Your task to perform on an android device: toggle javascript in the chrome app Image 0: 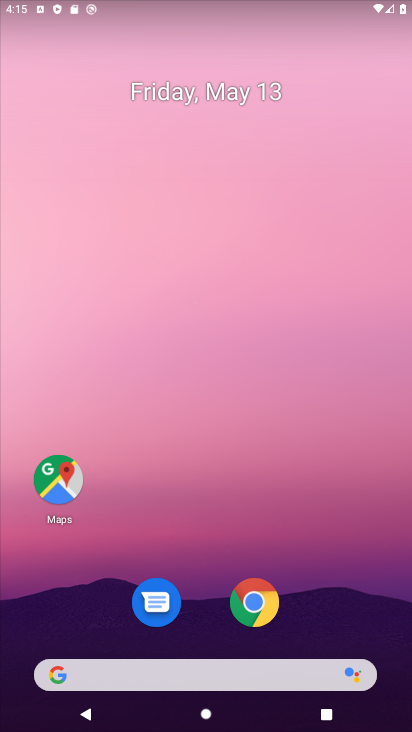
Step 0: click (256, 610)
Your task to perform on an android device: toggle javascript in the chrome app Image 1: 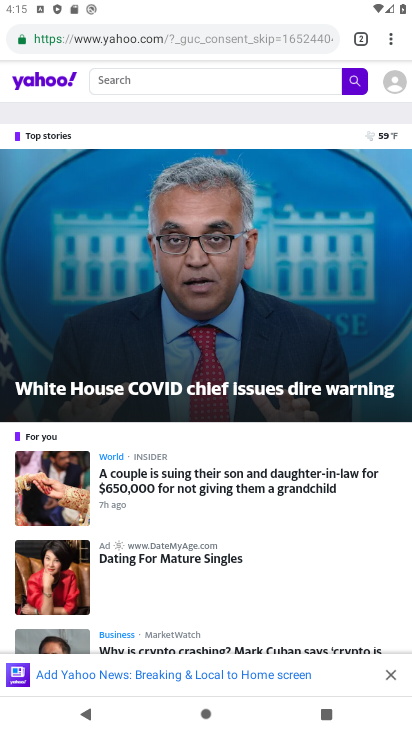
Step 1: click (393, 34)
Your task to perform on an android device: toggle javascript in the chrome app Image 2: 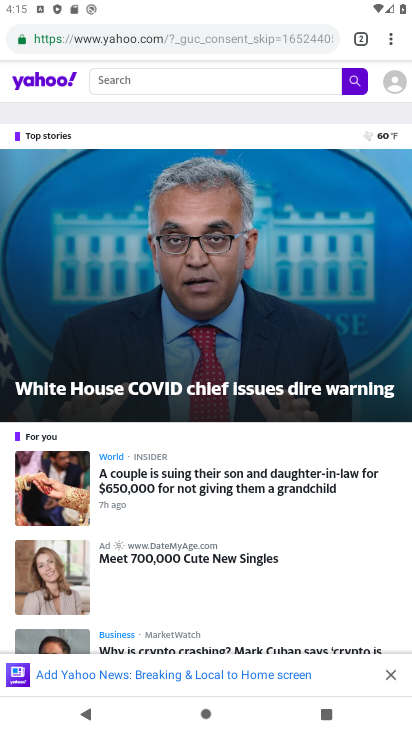
Step 2: click (392, 38)
Your task to perform on an android device: toggle javascript in the chrome app Image 3: 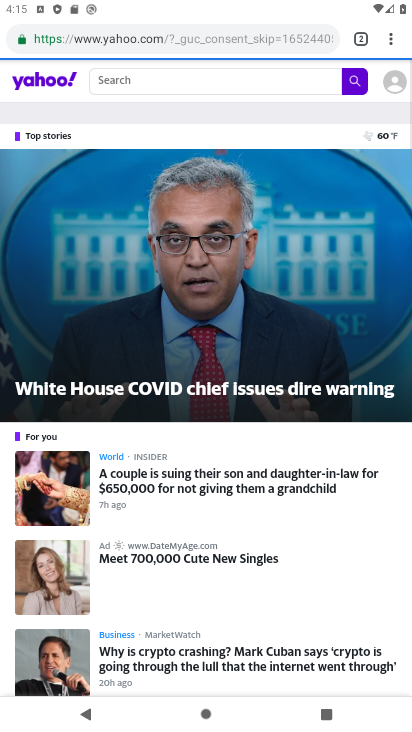
Step 3: click (392, 38)
Your task to perform on an android device: toggle javascript in the chrome app Image 4: 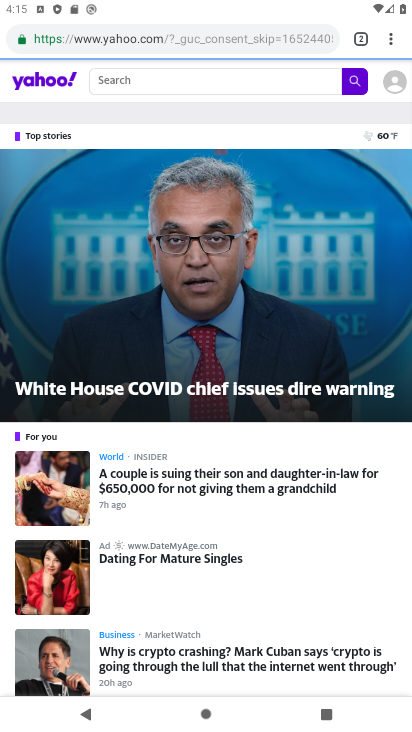
Step 4: click (392, 38)
Your task to perform on an android device: toggle javascript in the chrome app Image 5: 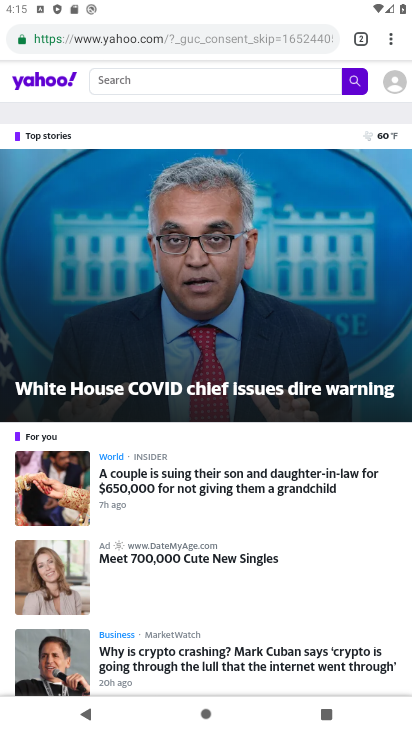
Step 5: click (359, 37)
Your task to perform on an android device: toggle javascript in the chrome app Image 6: 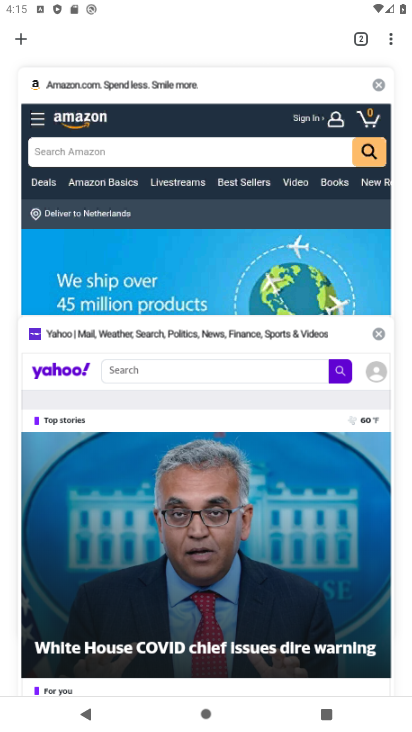
Step 6: click (380, 76)
Your task to perform on an android device: toggle javascript in the chrome app Image 7: 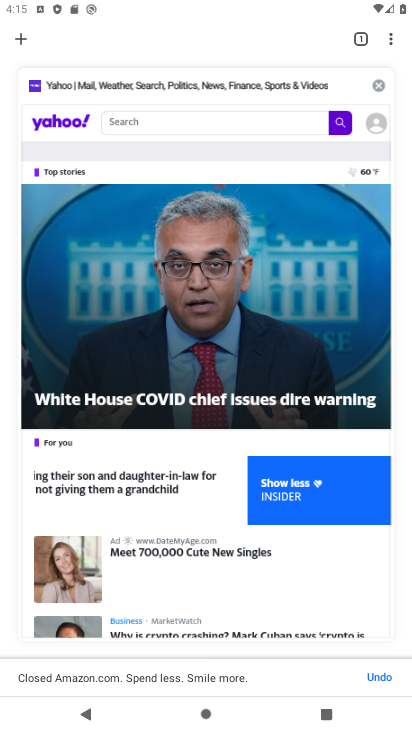
Step 7: click (380, 76)
Your task to perform on an android device: toggle javascript in the chrome app Image 8: 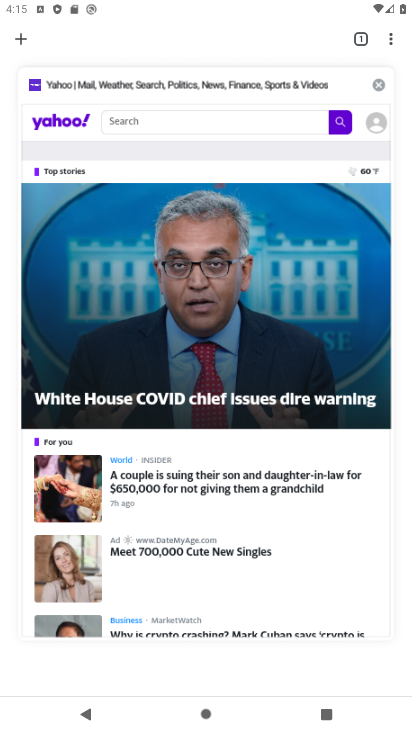
Step 8: click (378, 83)
Your task to perform on an android device: toggle javascript in the chrome app Image 9: 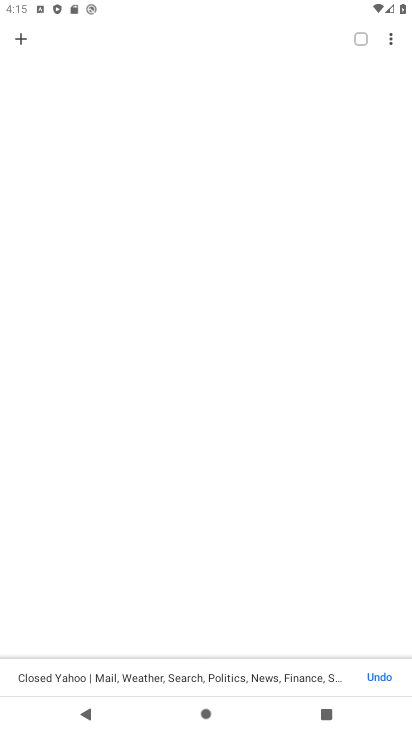
Step 9: click (387, 38)
Your task to perform on an android device: toggle javascript in the chrome app Image 10: 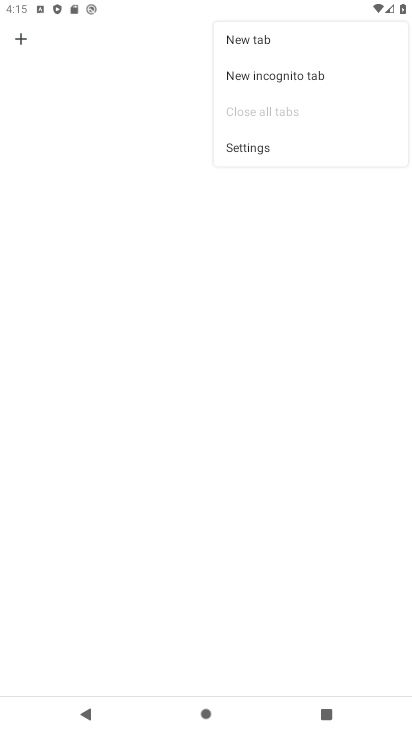
Step 10: click (259, 140)
Your task to perform on an android device: toggle javascript in the chrome app Image 11: 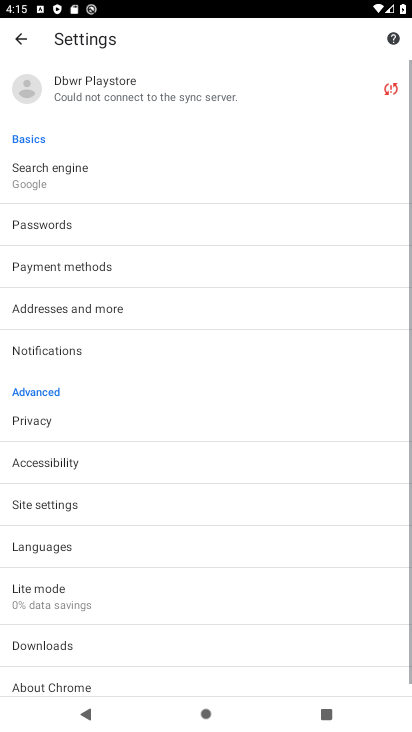
Step 11: drag from (144, 649) to (166, 242)
Your task to perform on an android device: toggle javascript in the chrome app Image 12: 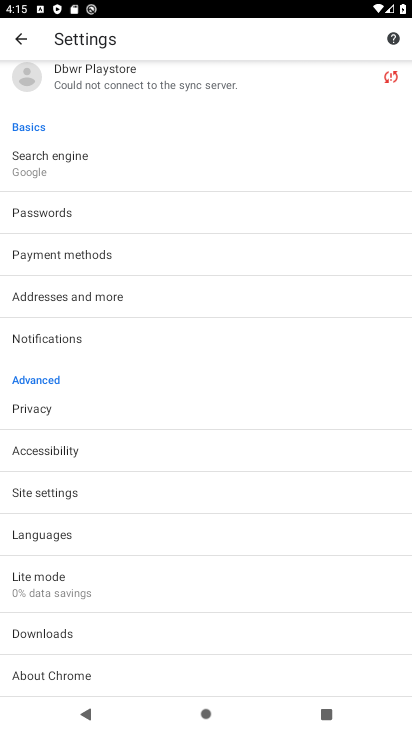
Step 12: click (88, 493)
Your task to perform on an android device: toggle javascript in the chrome app Image 13: 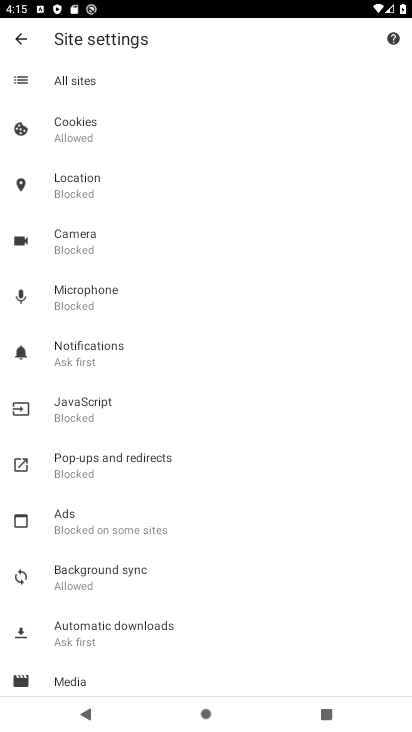
Step 13: click (108, 403)
Your task to perform on an android device: toggle javascript in the chrome app Image 14: 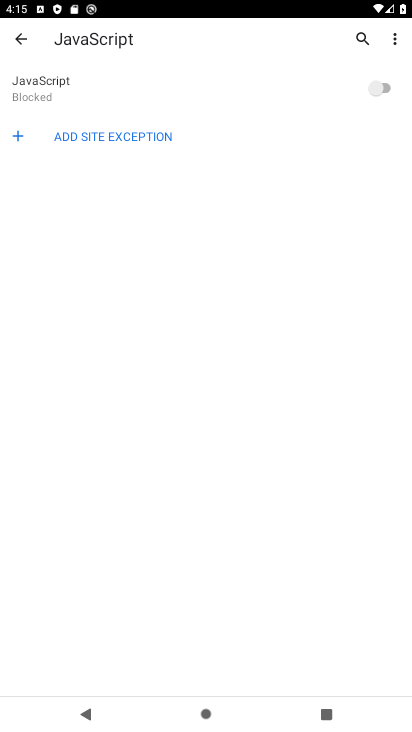
Step 14: click (381, 80)
Your task to perform on an android device: toggle javascript in the chrome app Image 15: 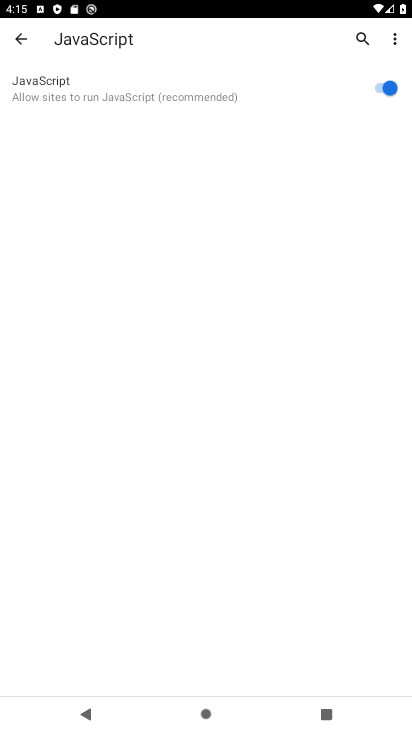
Step 15: task complete